Your task to perform on an android device: Go to battery settings Image 0: 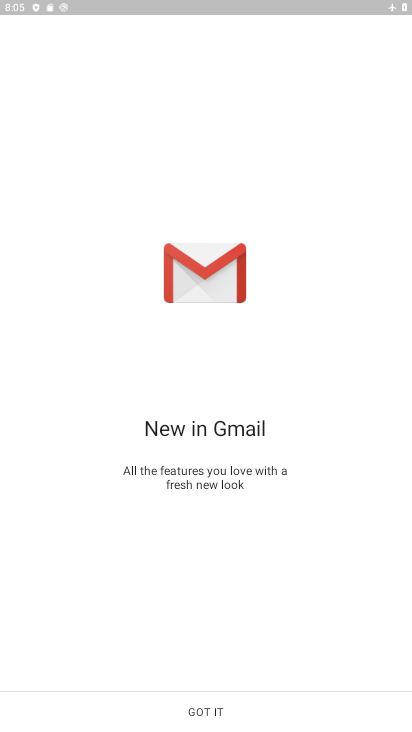
Step 0: press home button
Your task to perform on an android device: Go to battery settings Image 1: 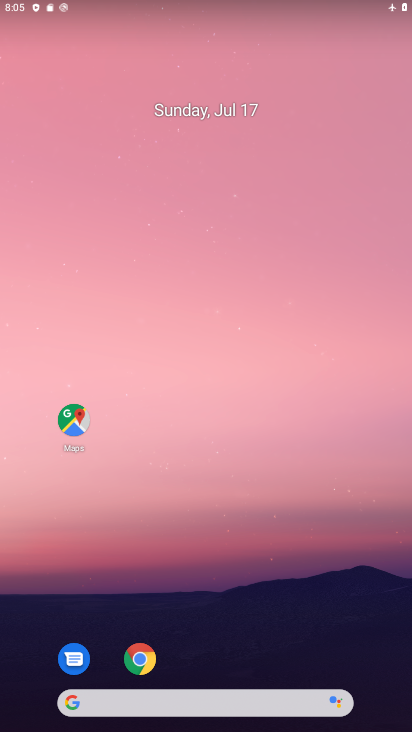
Step 1: drag from (193, 698) to (248, 184)
Your task to perform on an android device: Go to battery settings Image 2: 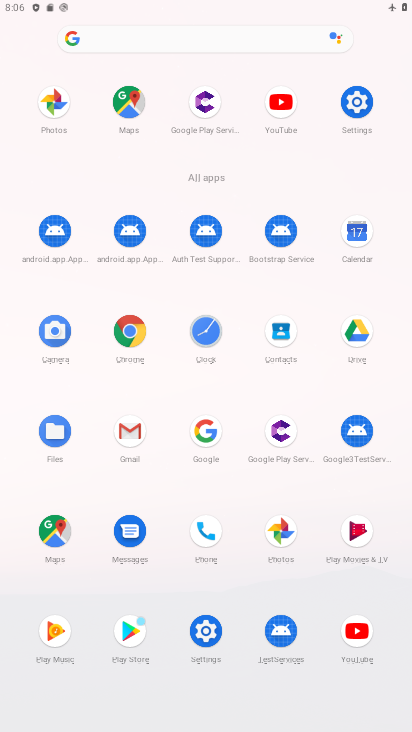
Step 2: click (356, 104)
Your task to perform on an android device: Go to battery settings Image 3: 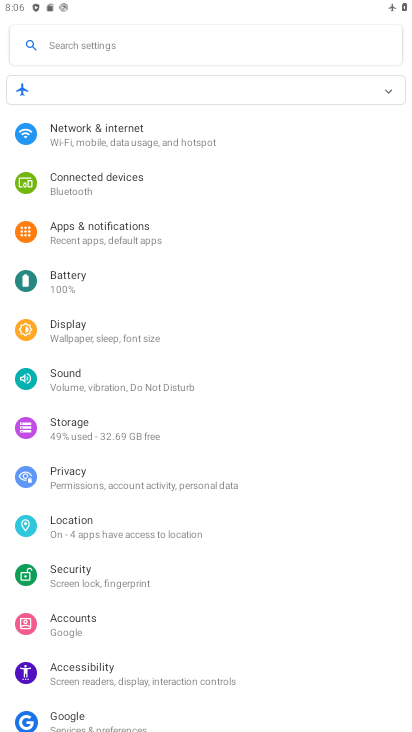
Step 3: click (76, 283)
Your task to perform on an android device: Go to battery settings Image 4: 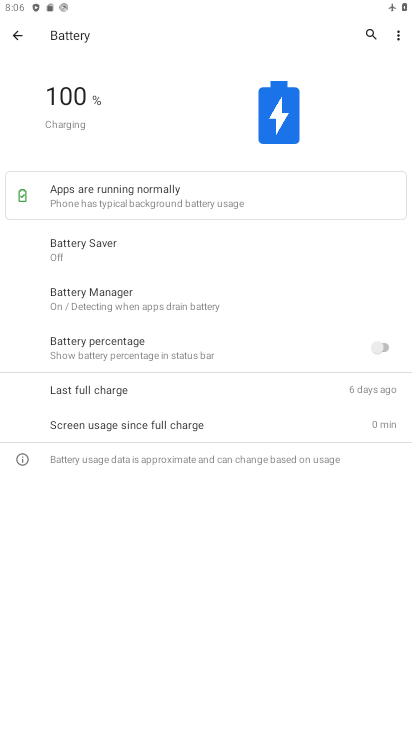
Step 4: task complete